Your task to perform on an android device: Open Google Maps and go to "Timeline" Image 0: 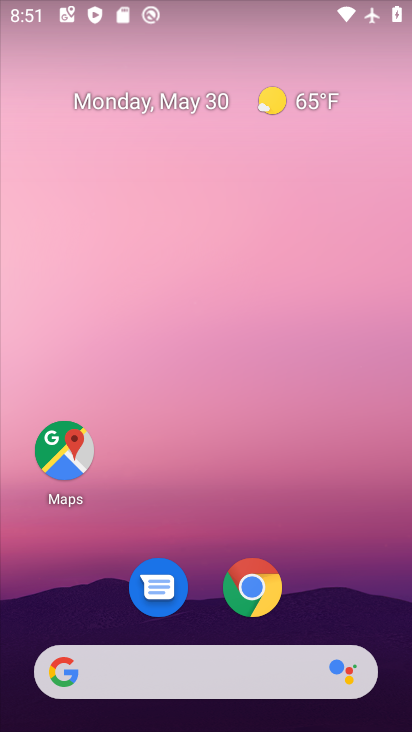
Step 0: click (66, 455)
Your task to perform on an android device: Open Google Maps and go to "Timeline" Image 1: 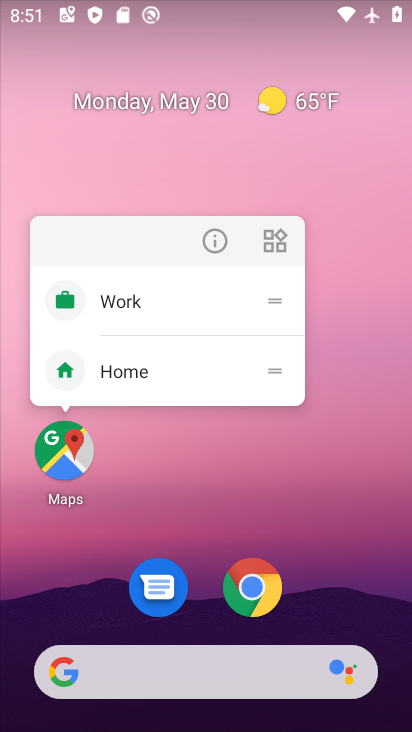
Step 1: click (67, 450)
Your task to perform on an android device: Open Google Maps and go to "Timeline" Image 2: 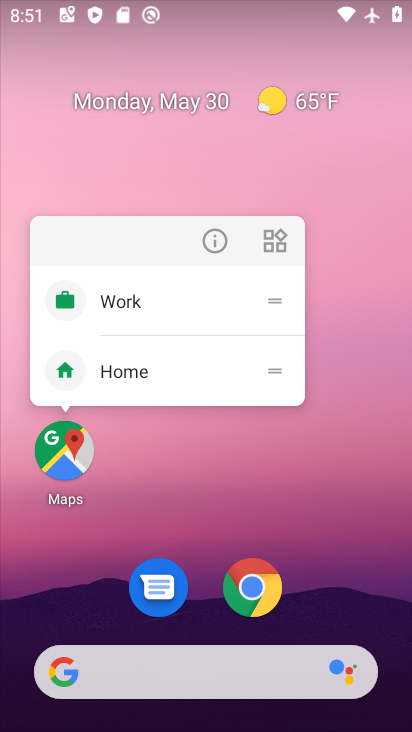
Step 2: click (52, 462)
Your task to perform on an android device: Open Google Maps and go to "Timeline" Image 3: 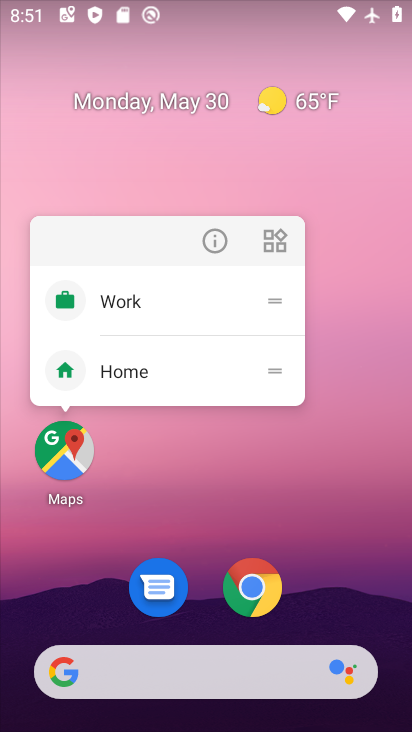
Step 3: click (60, 470)
Your task to perform on an android device: Open Google Maps and go to "Timeline" Image 4: 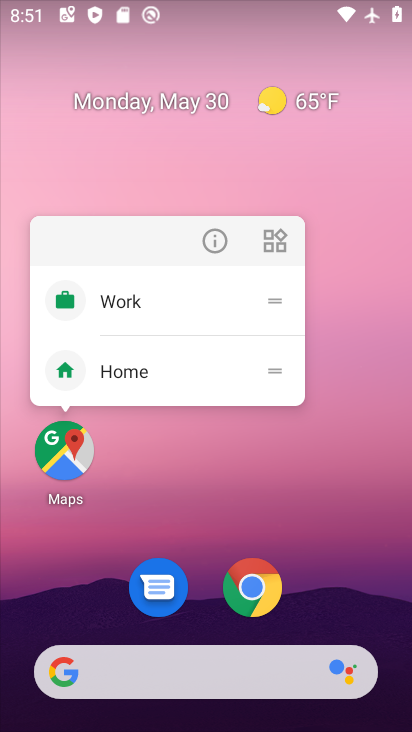
Step 4: click (62, 463)
Your task to perform on an android device: Open Google Maps and go to "Timeline" Image 5: 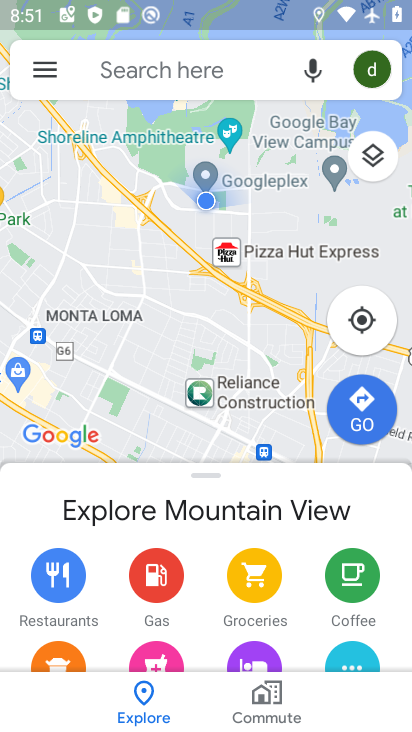
Step 5: click (43, 69)
Your task to perform on an android device: Open Google Maps and go to "Timeline" Image 6: 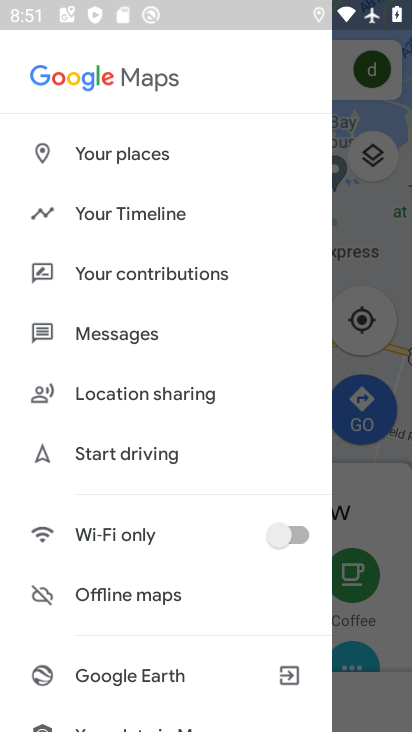
Step 6: click (122, 209)
Your task to perform on an android device: Open Google Maps and go to "Timeline" Image 7: 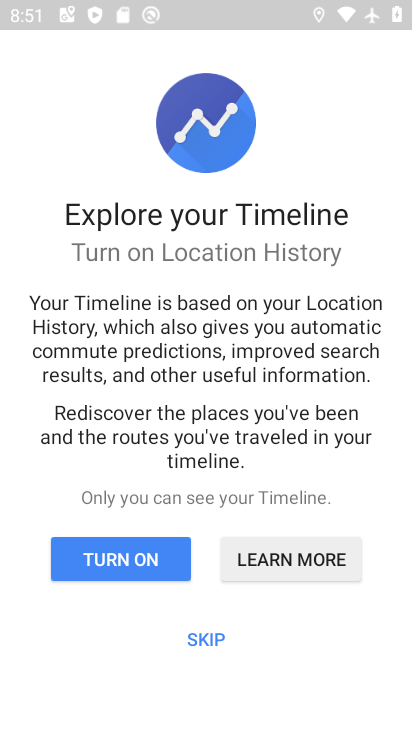
Step 7: click (183, 635)
Your task to perform on an android device: Open Google Maps and go to "Timeline" Image 8: 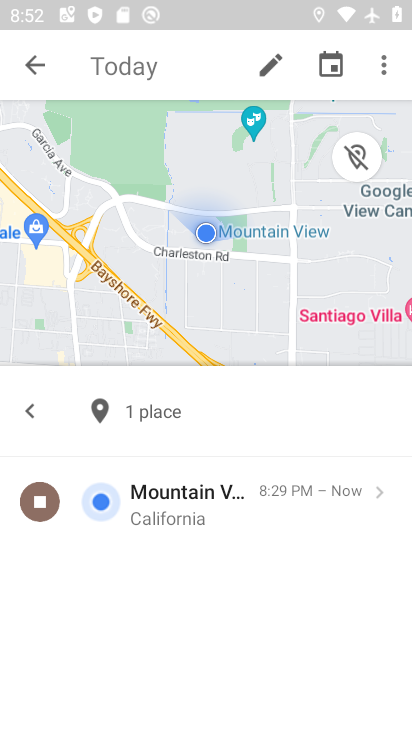
Step 8: task complete